Your task to perform on an android device: turn notification dots off Image 0: 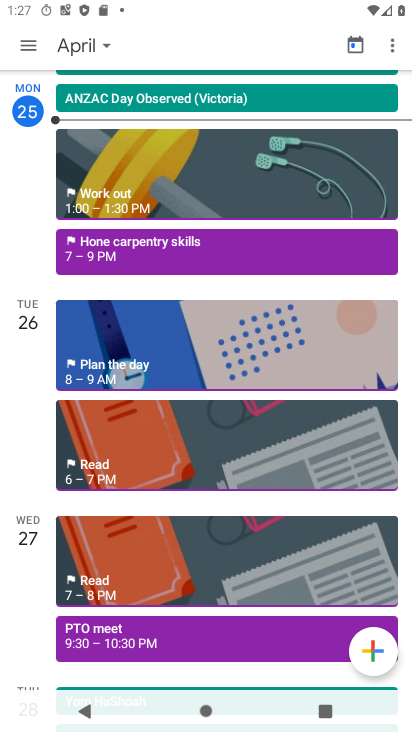
Step 0: press home button
Your task to perform on an android device: turn notification dots off Image 1: 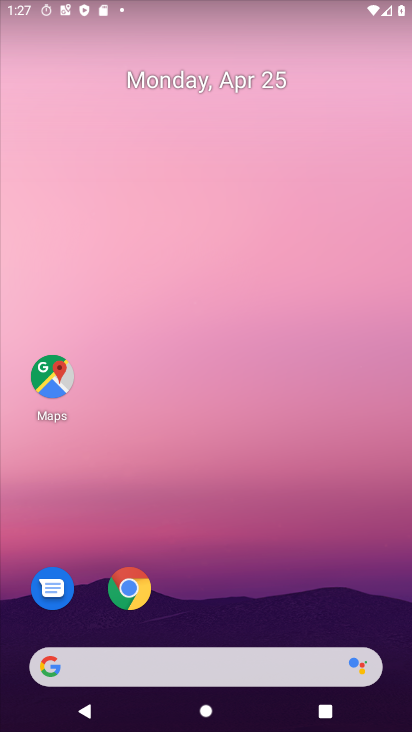
Step 1: drag from (230, 626) to (270, 213)
Your task to perform on an android device: turn notification dots off Image 2: 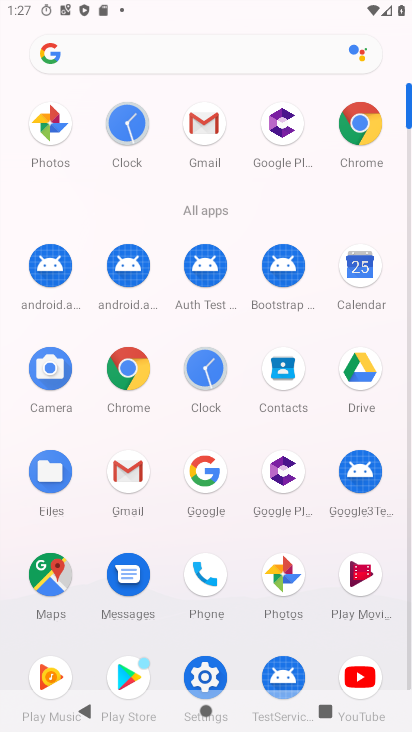
Step 2: click (204, 675)
Your task to perform on an android device: turn notification dots off Image 3: 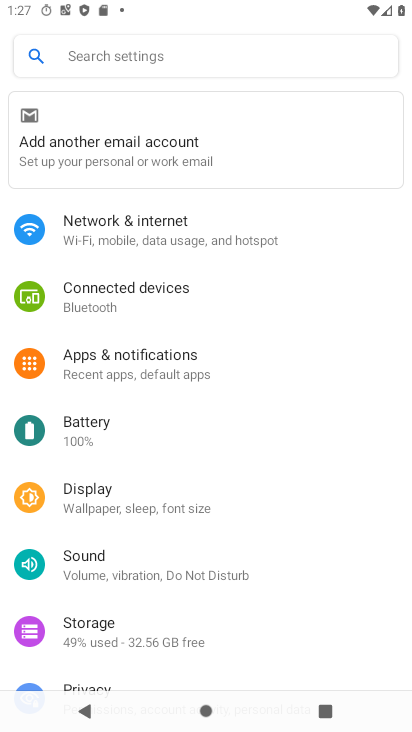
Step 3: click (179, 376)
Your task to perform on an android device: turn notification dots off Image 4: 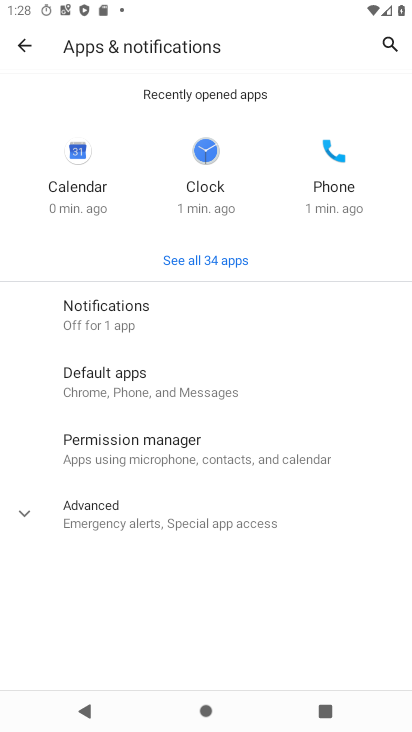
Step 4: click (164, 325)
Your task to perform on an android device: turn notification dots off Image 5: 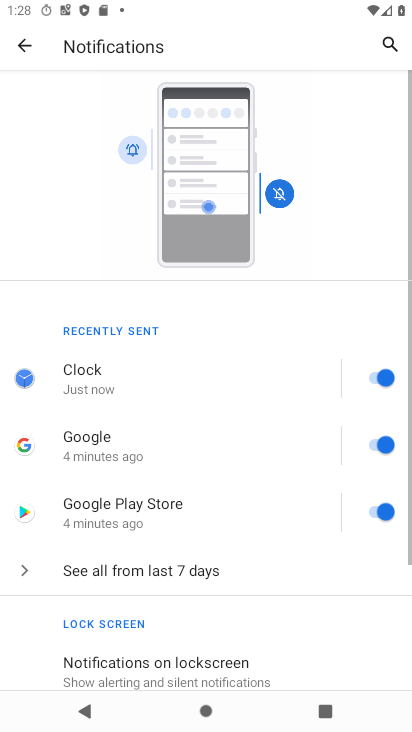
Step 5: drag from (190, 601) to (212, 244)
Your task to perform on an android device: turn notification dots off Image 6: 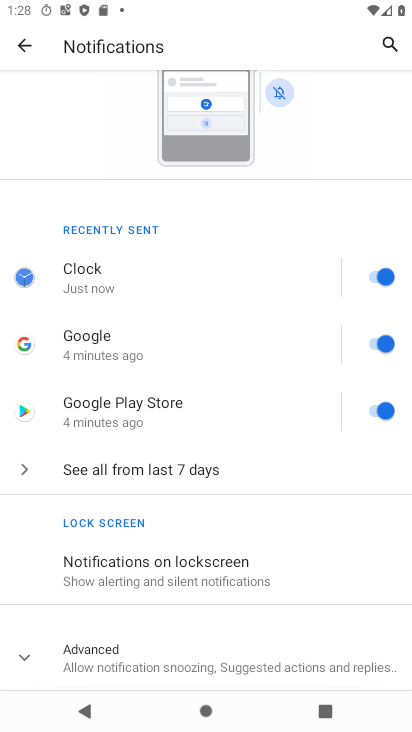
Step 6: click (150, 646)
Your task to perform on an android device: turn notification dots off Image 7: 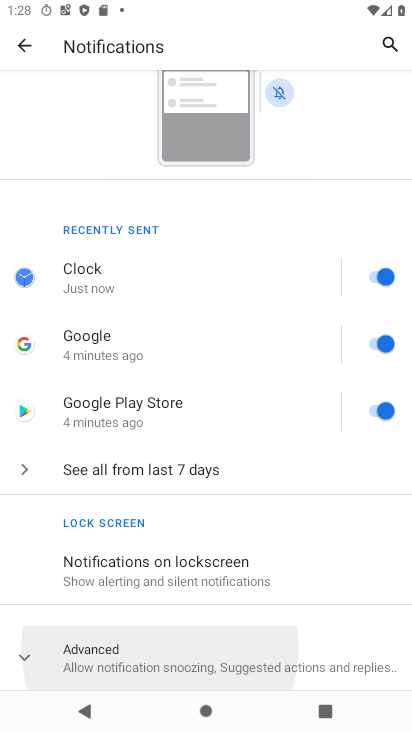
Step 7: drag from (153, 639) to (211, 298)
Your task to perform on an android device: turn notification dots off Image 8: 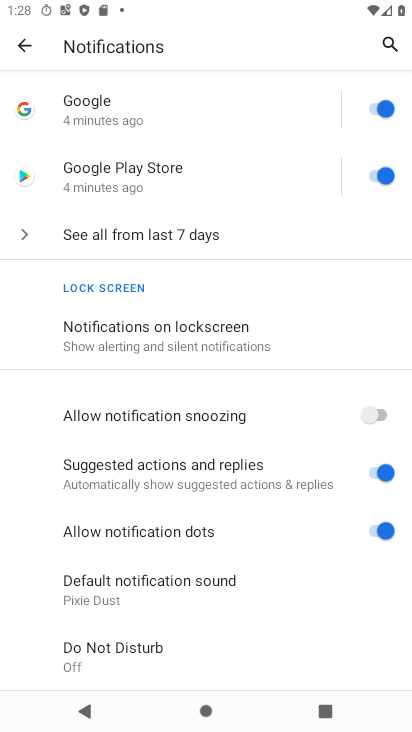
Step 8: click (382, 526)
Your task to perform on an android device: turn notification dots off Image 9: 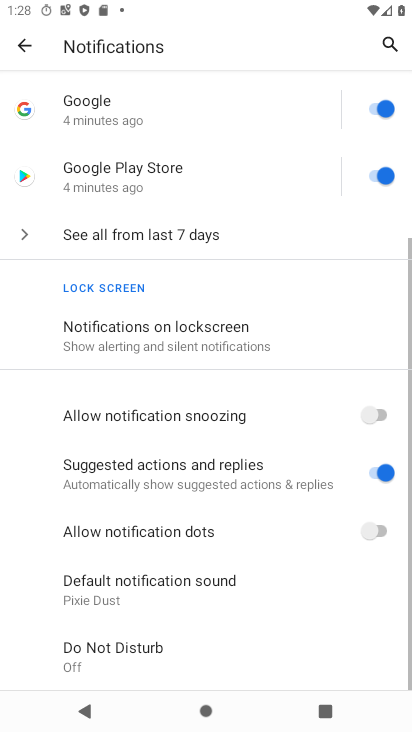
Step 9: task complete